Your task to perform on an android device: search for starred emails in the gmail app Image 0: 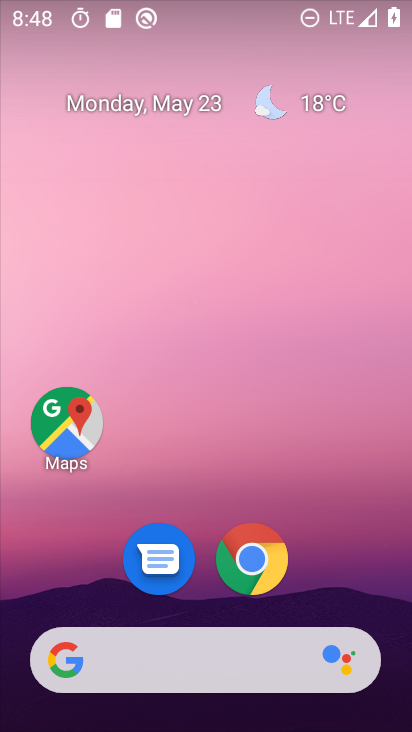
Step 0: drag from (385, 626) to (281, 43)
Your task to perform on an android device: search for starred emails in the gmail app Image 1: 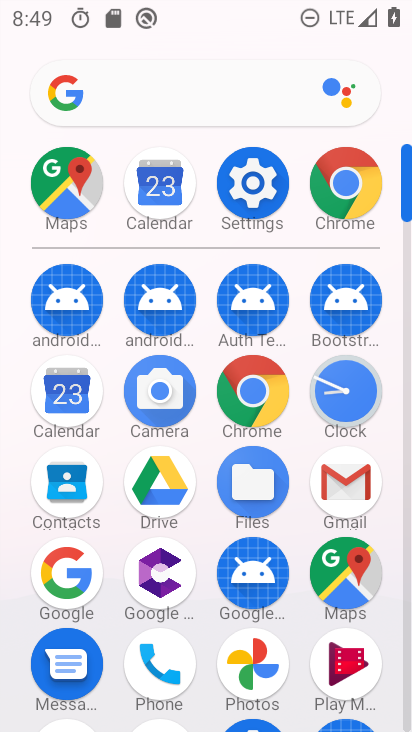
Step 1: click (350, 474)
Your task to perform on an android device: search for starred emails in the gmail app Image 2: 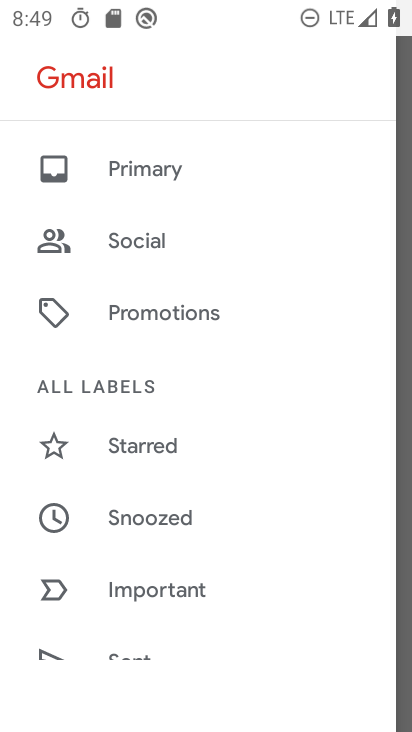
Step 2: click (128, 448)
Your task to perform on an android device: search for starred emails in the gmail app Image 3: 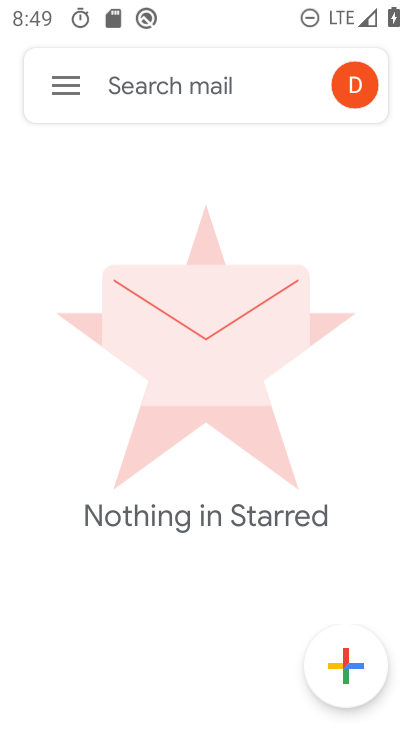
Step 3: task complete